Your task to perform on an android device: Open Maps and search for coffee Image 0: 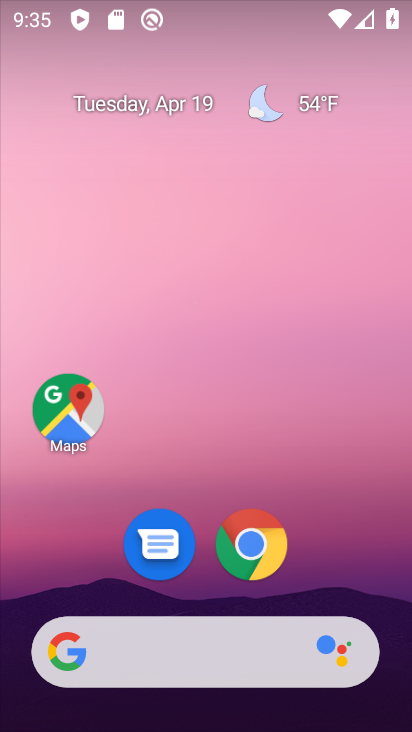
Step 0: click (70, 414)
Your task to perform on an android device: Open Maps and search for coffee Image 1: 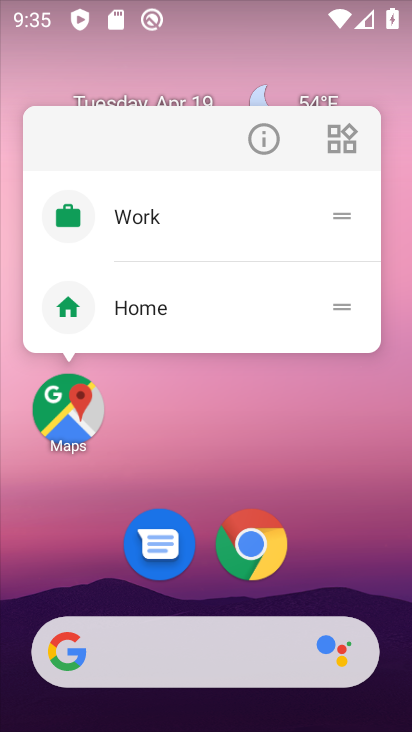
Step 1: click (70, 421)
Your task to perform on an android device: Open Maps and search for coffee Image 2: 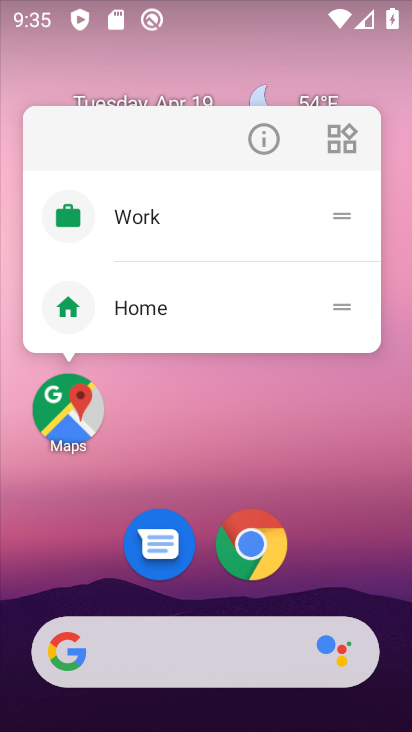
Step 2: click (56, 408)
Your task to perform on an android device: Open Maps and search for coffee Image 3: 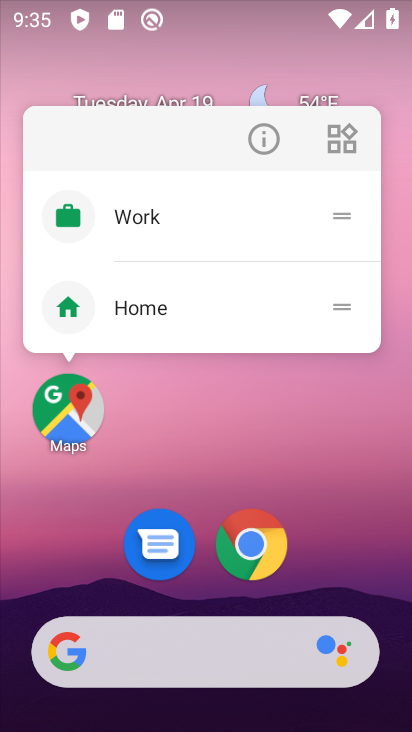
Step 3: click (65, 419)
Your task to perform on an android device: Open Maps and search for coffee Image 4: 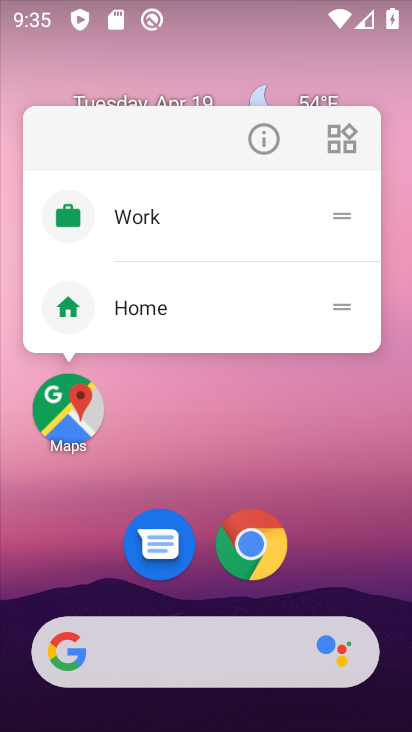
Step 4: click (54, 423)
Your task to perform on an android device: Open Maps and search for coffee Image 5: 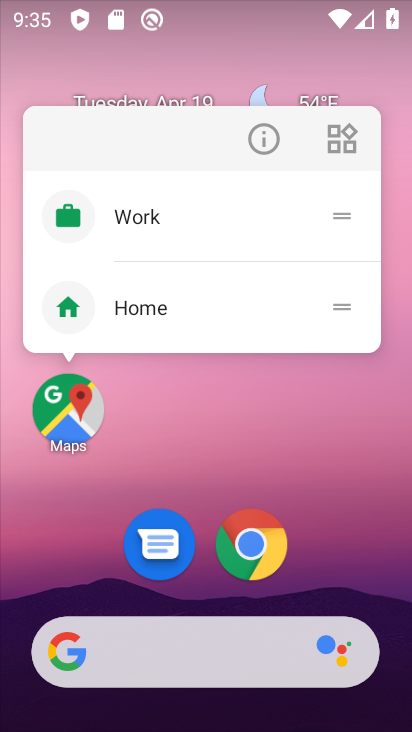
Step 5: click (63, 422)
Your task to perform on an android device: Open Maps and search for coffee Image 6: 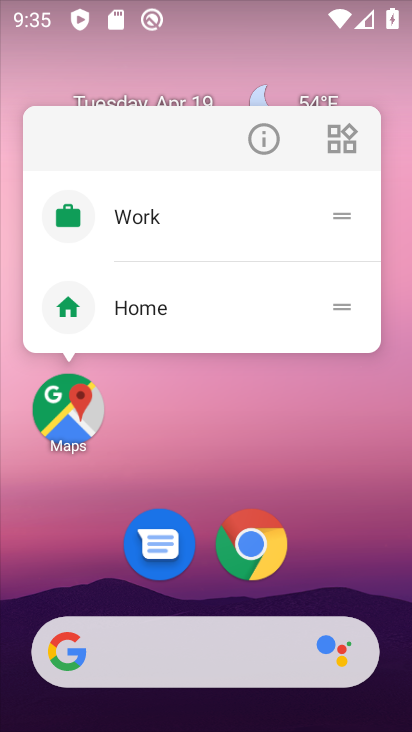
Step 6: click (67, 411)
Your task to perform on an android device: Open Maps and search for coffee Image 7: 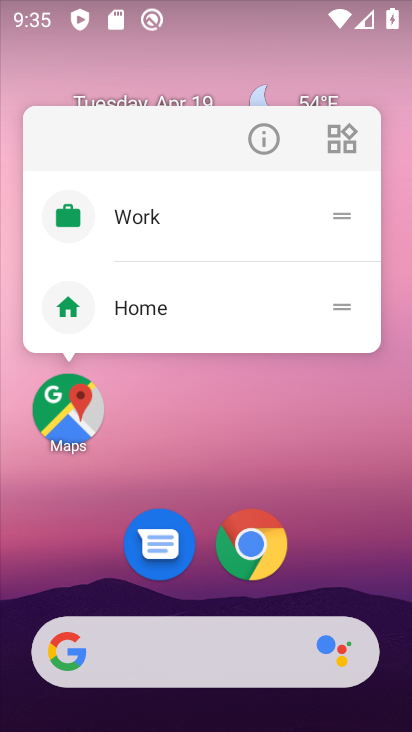
Step 7: click (68, 417)
Your task to perform on an android device: Open Maps and search for coffee Image 8: 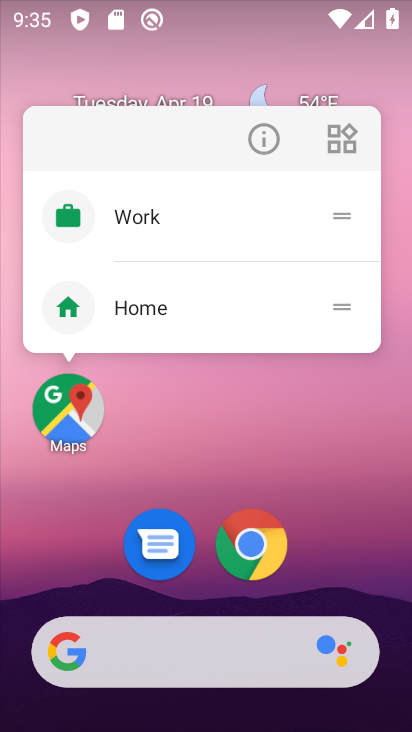
Step 8: click (55, 399)
Your task to perform on an android device: Open Maps and search for coffee Image 9: 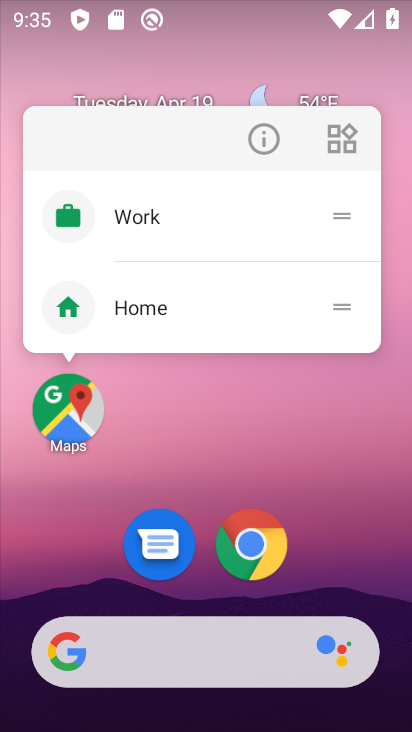
Step 9: click (60, 437)
Your task to perform on an android device: Open Maps and search for coffee Image 10: 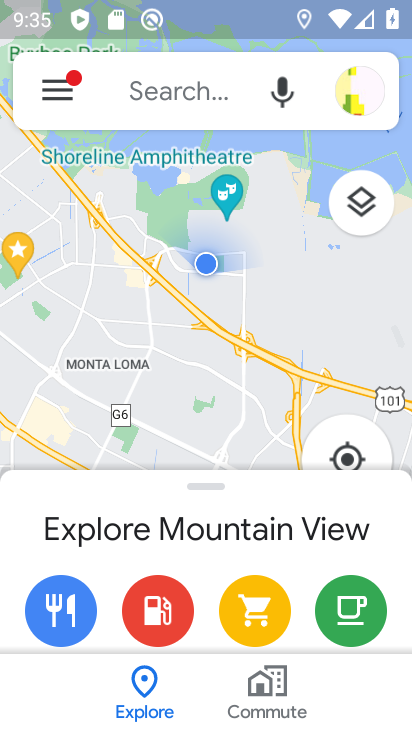
Step 10: click (160, 101)
Your task to perform on an android device: Open Maps and search for coffee Image 11: 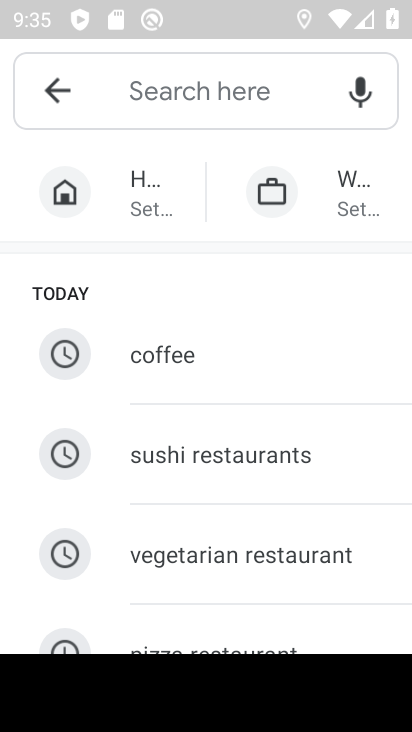
Step 11: type "coffe"
Your task to perform on an android device: Open Maps and search for coffee Image 12: 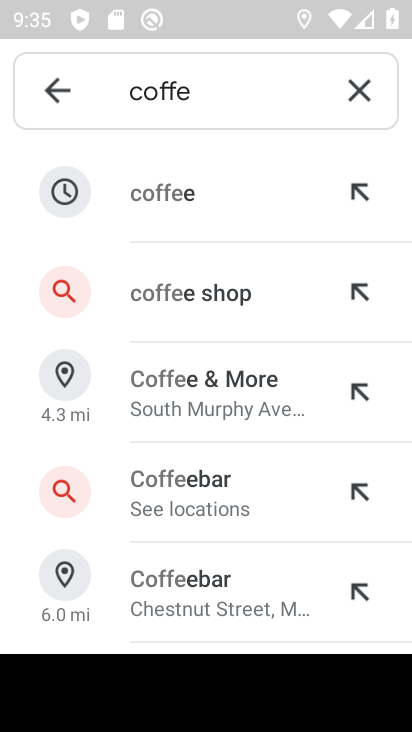
Step 12: click (182, 191)
Your task to perform on an android device: Open Maps and search for coffee Image 13: 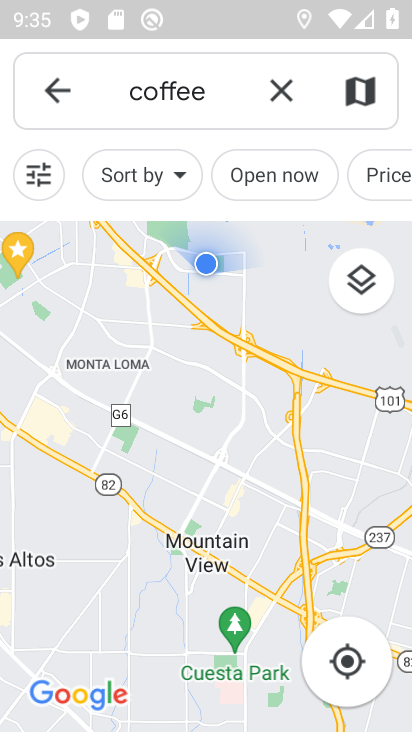
Step 13: task complete